Your task to perform on an android device: open app "Google Maps" (install if not already installed) Image 0: 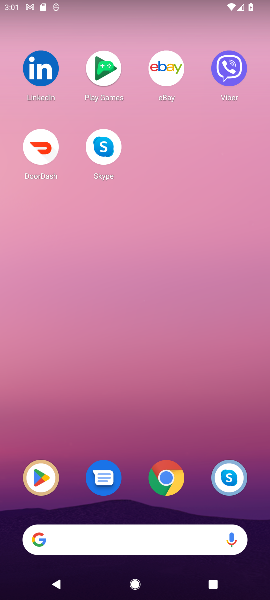
Step 0: drag from (167, 500) to (167, 70)
Your task to perform on an android device: open app "Google Maps" (install if not already installed) Image 1: 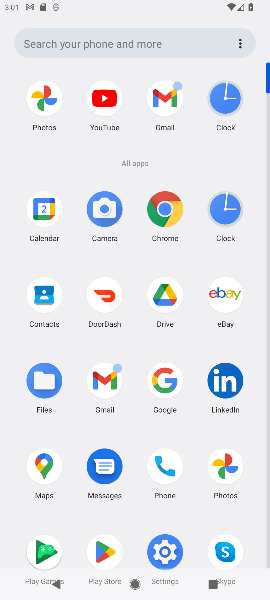
Step 1: click (105, 550)
Your task to perform on an android device: open app "Google Maps" (install if not already installed) Image 2: 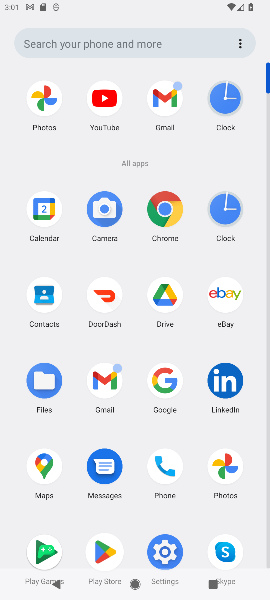
Step 2: click (105, 550)
Your task to perform on an android device: open app "Google Maps" (install if not already installed) Image 3: 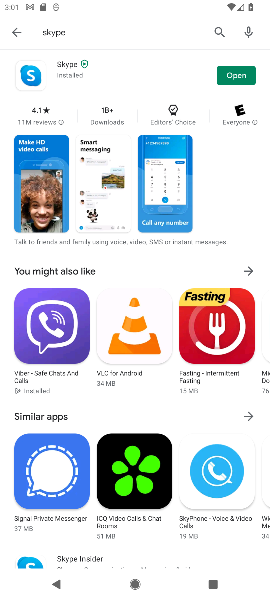
Step 3: click (105, 550)
Your task to perform on an android device: open app "Google Maps" (install if not already installed) Image 4: 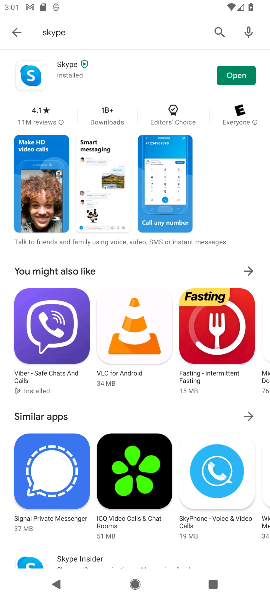
Step 4: click (106, 550)
Your task to perform on an android device: open app "Google Maps" (install if not already installed) Image 5: 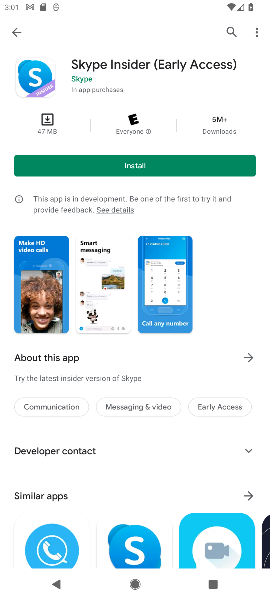
Step 5: click (10, 36)
Your task to perform on an android device: open app "Google Maps" (install if not already installed) Image 6: 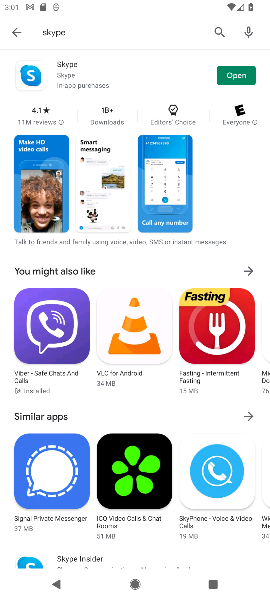
Step 6: click (69, 30)
Your task to perform on an android device: open app "Google Maps" (install if not already installed) Image 7: 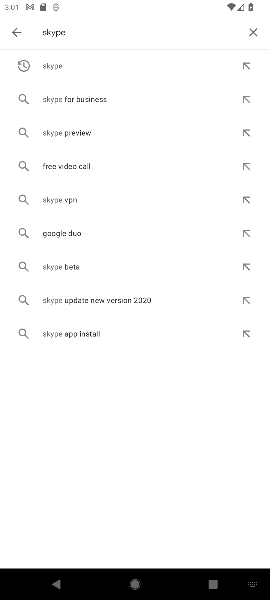
Step 7: click (254, 37)
Your task to perform on an android device: open app "Google Maps" (install if not already installed) Image 8: 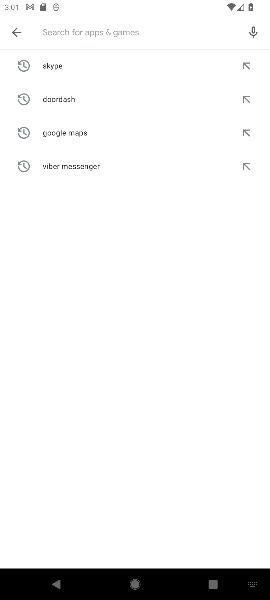
Step 8: type "Google Maps"
Your task to perform on an android device: open app "Google Maps" (install if not already installed) Image 9: 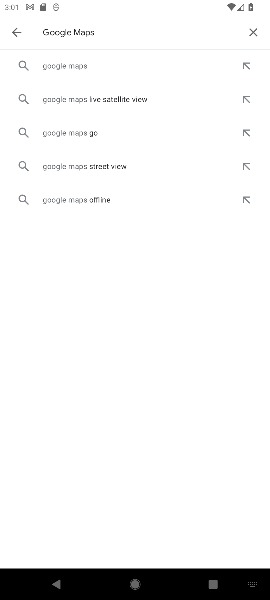
Step 9: click (63, 67)
Your task to perform on an android device: open app "Google Maps" (install if not already installed) Image 10: 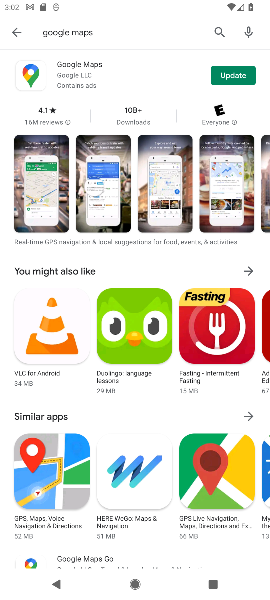
Step 10: click (233, 77)
Your task to perform on an android device: open app "Google Maps" (install if not already installed) Image 11: 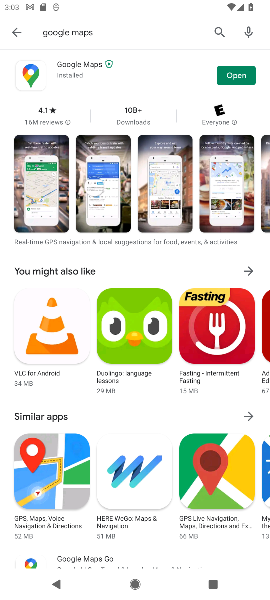
Step 11: click (240, 76)
Your task to perform on an android device: open app "Google Maps" (install if not already installed) Image 12: 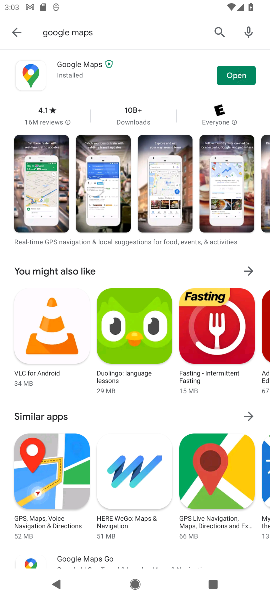
Step 12: click (240, 76)
Your task to perform on an android device: open app "Google Maps" (install if not already installed) Image 13: 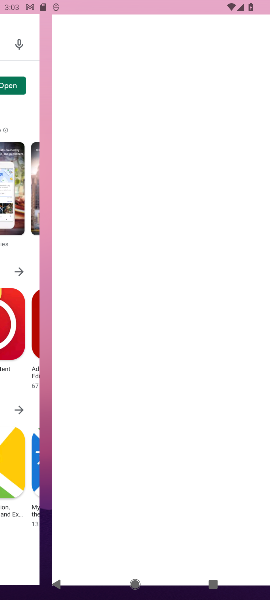
Step 13: click (241, 76)
Your task to perform on an android device: open app "Google Maps" (install if not already installed) Image 14: 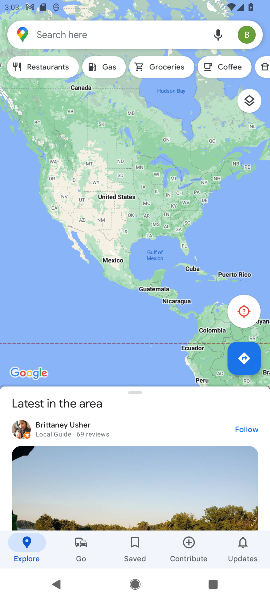
Step 14: task complete